Your task to perform on an android device: Open Chrome and go to the settings page Image 0: 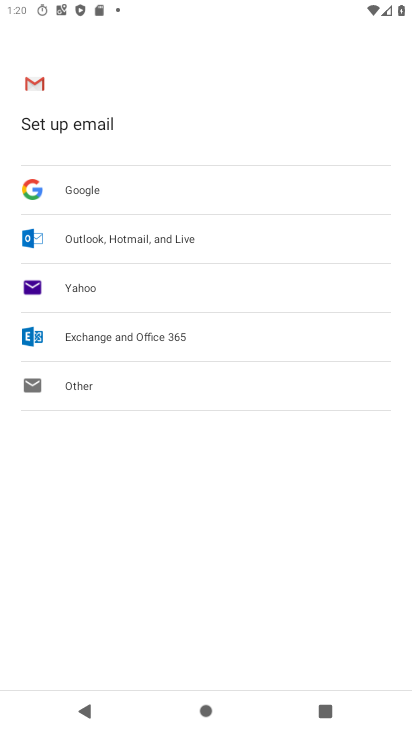
Step 0: press home button
Your task to perform on an android device: Open Chrome and go to the settings page Image 1: 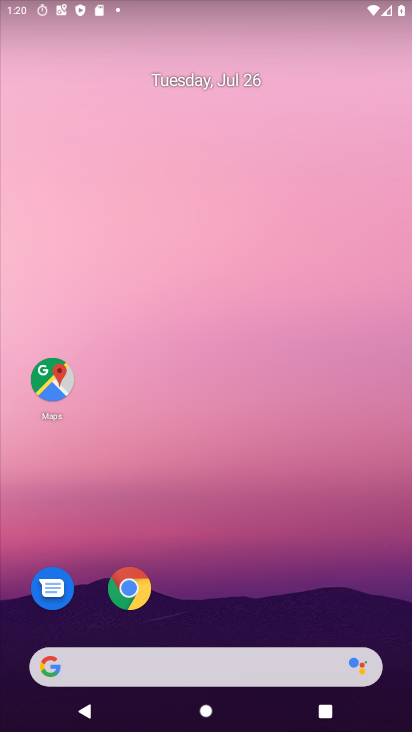
Step 1: click (138, 590)
Your task to perform on an android device: Open Chrome and go to the settings page Image 2: 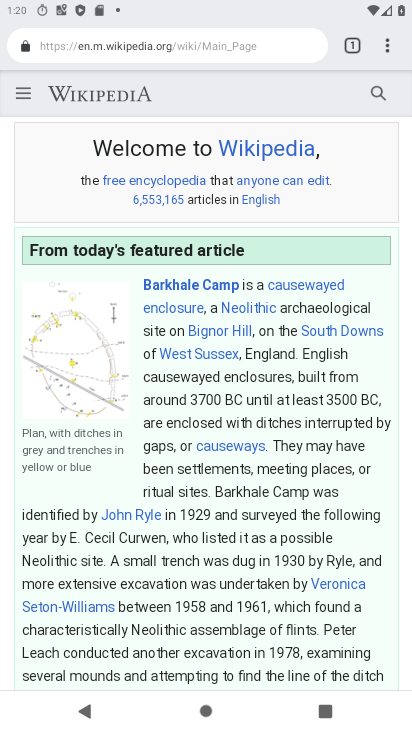
Step 2: click (384, 37)
Your task to perform on an android device: Open Chrome and go to the settings page Image 3: 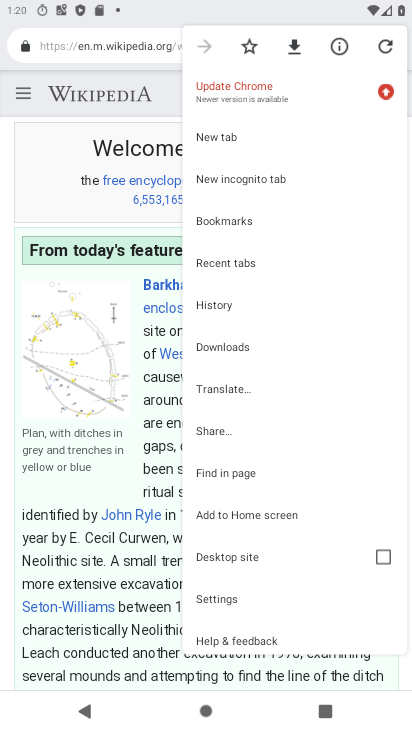
Step 3: click (246, 599)
Your task to perform on an android device: Open Chrome and go to the settings page Image 4: 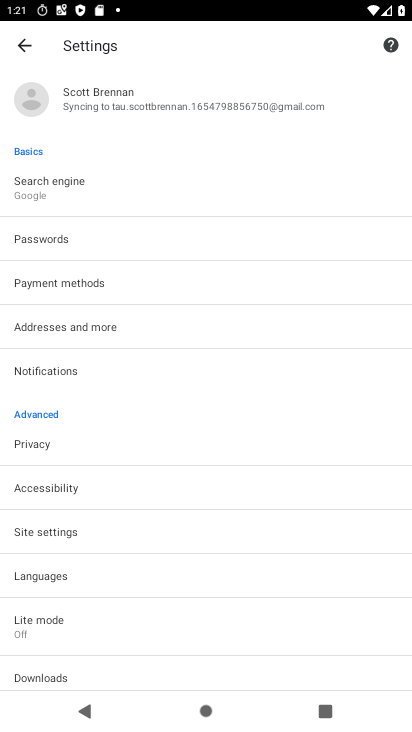
Step 4: task complete